Your task to perform on an android device: Open settings on Google Maps Image 0: 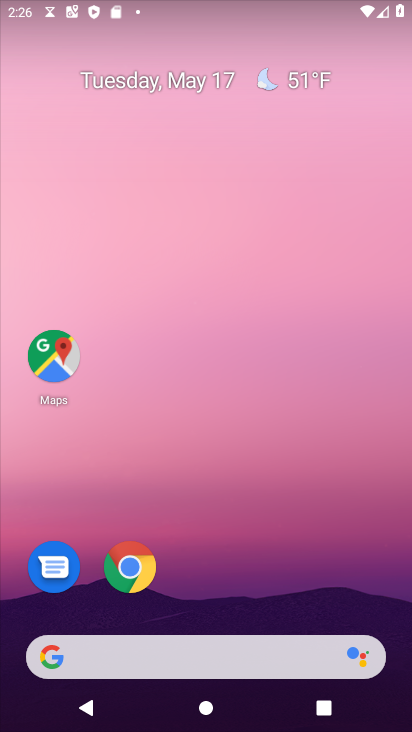
Step 0: click (50, 376)
Your task to perform on an android device: Open settings on Google Maps Image 1: 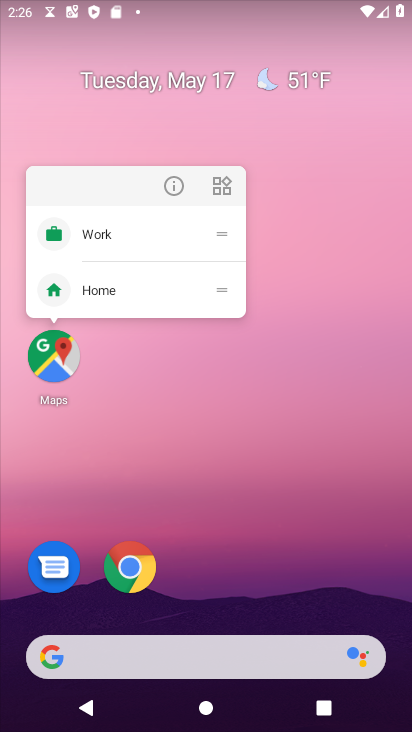
Step 1: click (50, 376)
Your task to perform on an android device: Open settings on Google Maps Image 2: 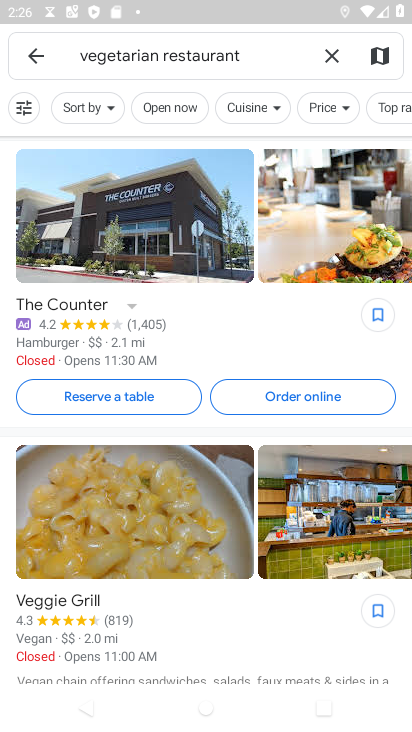
Step 2: click (41, 57)
Your task to perform on an android device: Open settings on Google Maps Image 3: 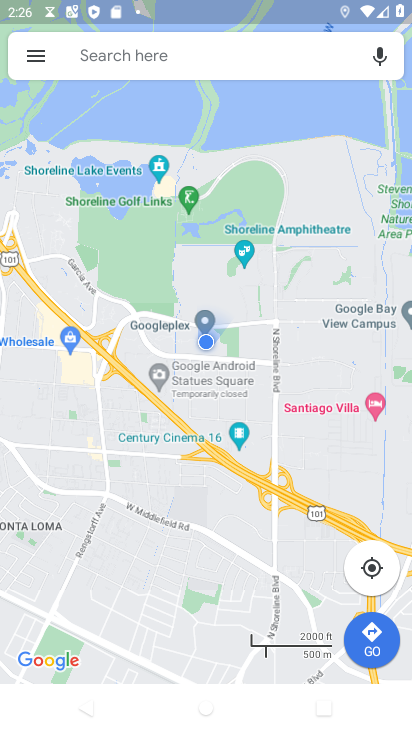
Step 3: click (41, 57)
Your task to perform on an android device: Open settings on Google Maps Image 4: 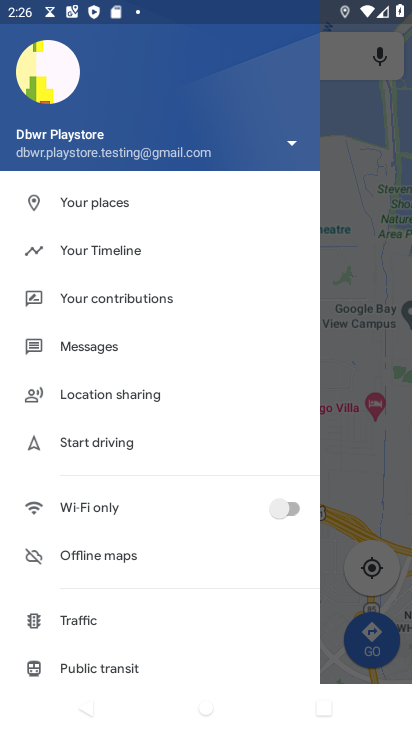
Step 4: drag from (112, 627) to (136, 27)
Your task to perform on an android device: Open settings on Google Maps Image 5: 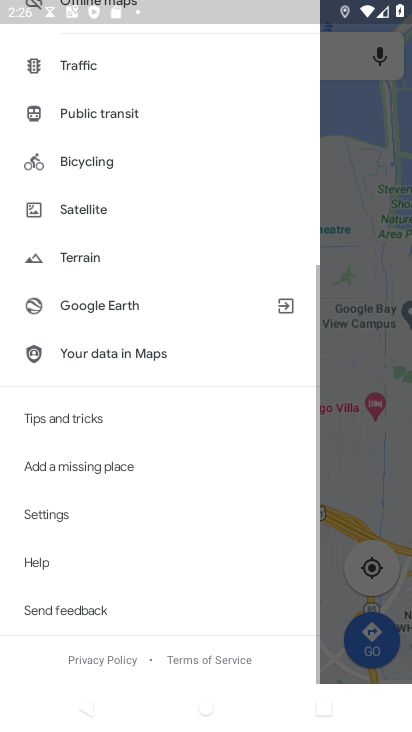
Step 5: click (55, 514)
Your task to perform on an android device: Open settings on Google Maps Image 6: 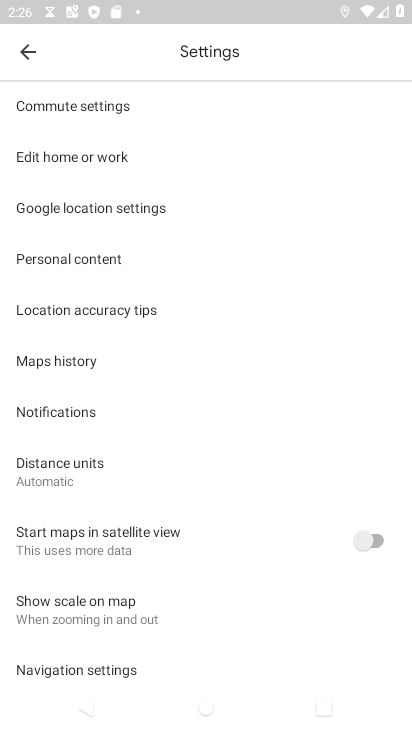
Step 6: task complete